Your task to perform on an android device: View the shopping cart on bestbuy.com. Search for "usb-c to usb-b" on bestbuy.com, select the first entry, and add it to the cart. Image 0: 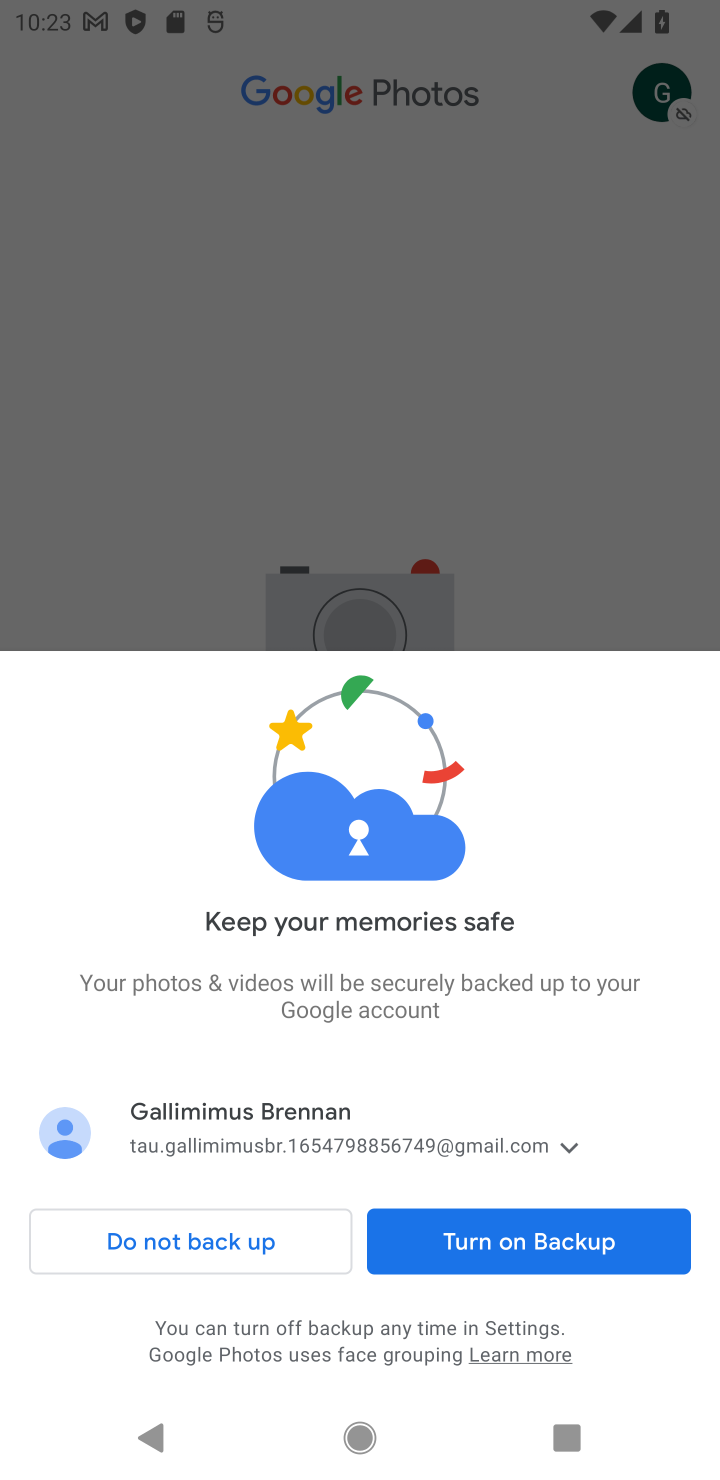
Step 0: press home button
Your task to perform on an android device: View the shopping cart on bestbuy.com. Search for "usb-c to usb-b" on bestbuy.com, select the first entry, and add it to the cart. Image 1: 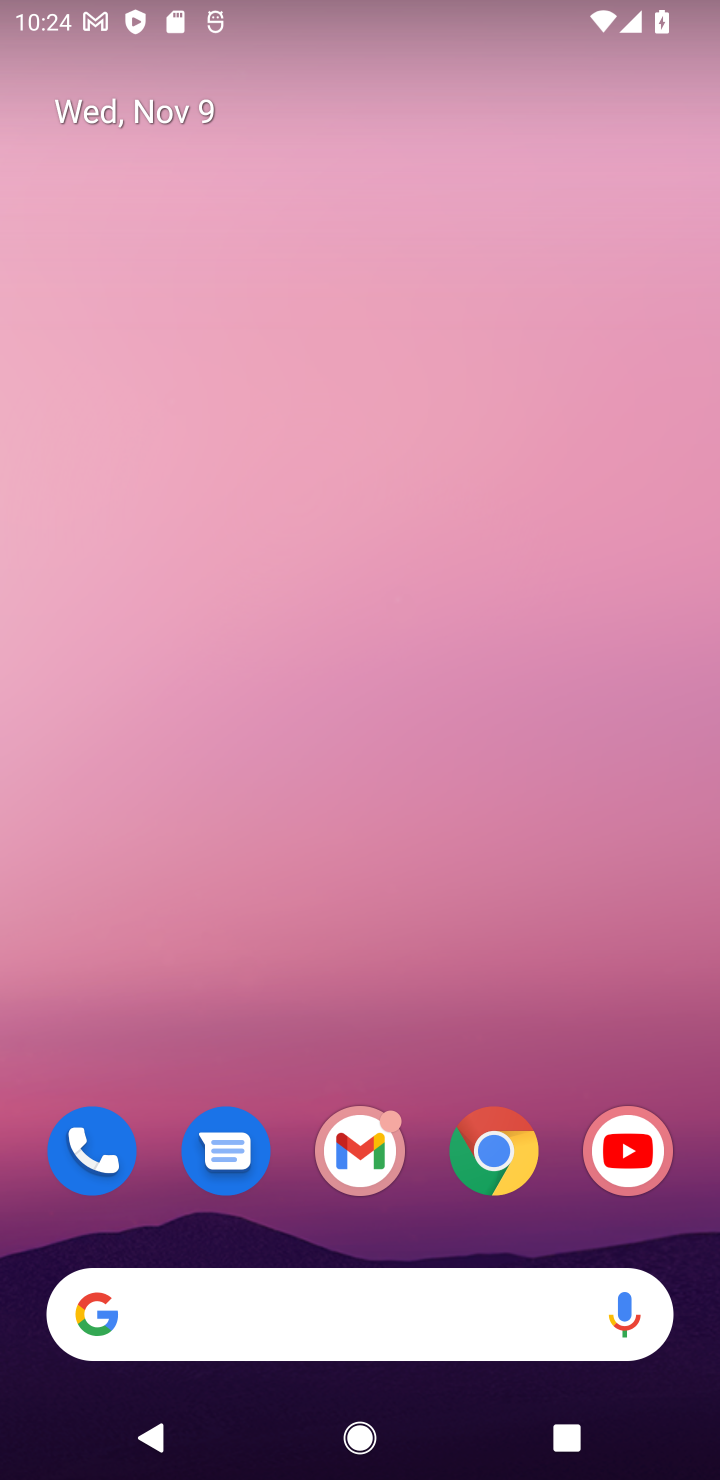
Step 1: click (474, 1167)
Your task to perform on an android device: View the shopping cart on bestbuy.com. Search for "usb-c to usb-b" on bestbuy.com, select the first entry, and add it to the cart. Image 2: 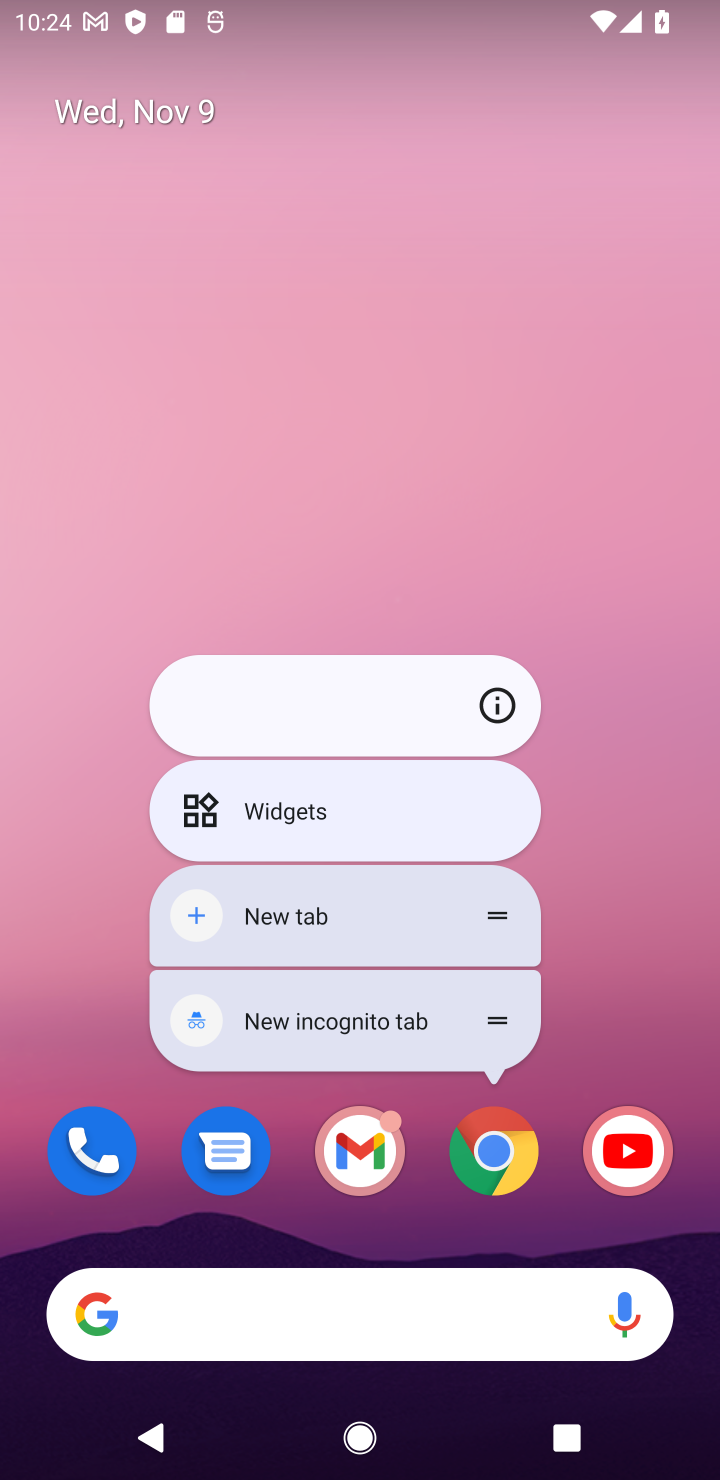
Step 2: click (474, 1167)
Your task to perform on an android device: View the shopping cart on bestbuy.com. Search for "usb-c to usb-b" on bestbuy.com, select the first entry, and add it to the cart. Image 3: 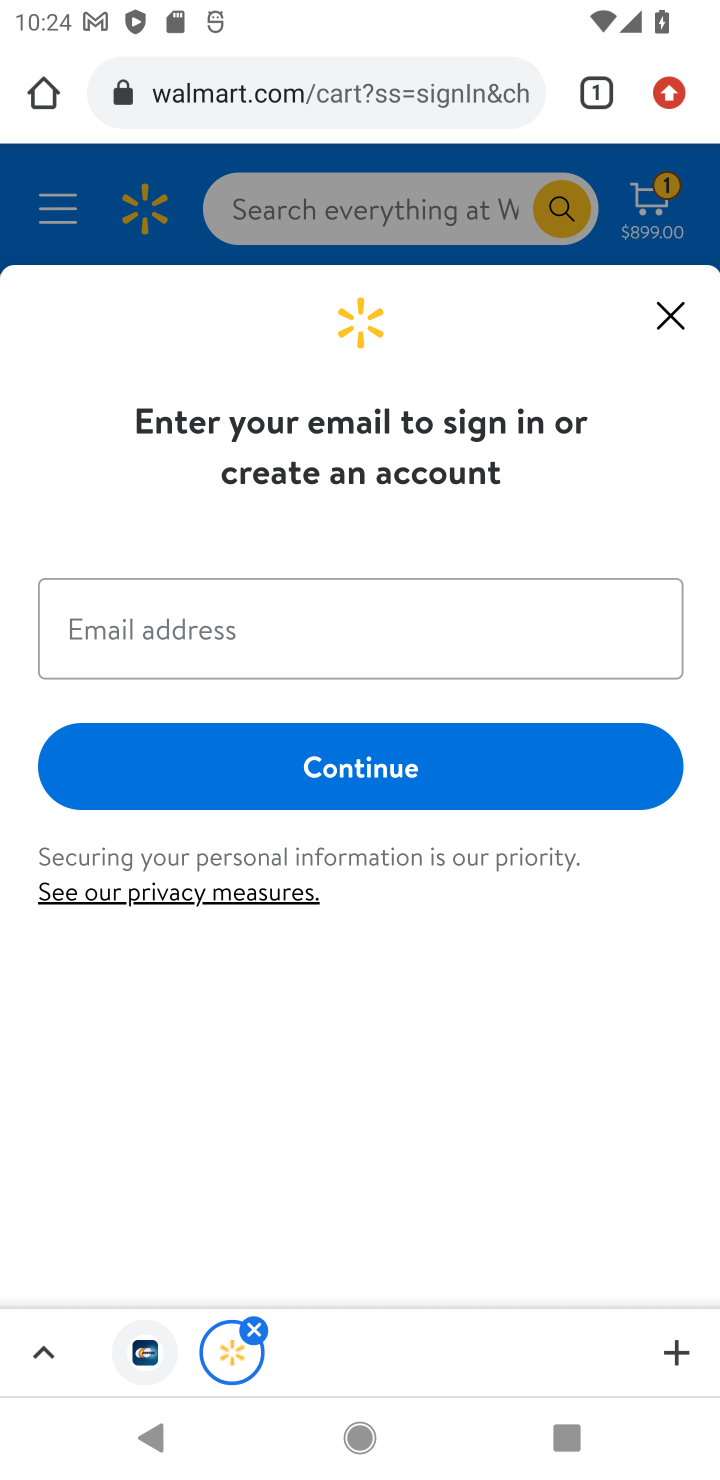
Step 3: click (398, 94)
Your task to perform on an android device: View the shopping cart on bestbuy.com. Search for "usb-c to usb-b" on bestbuy.com, select the first entry, and add it to the cart. Image 4: 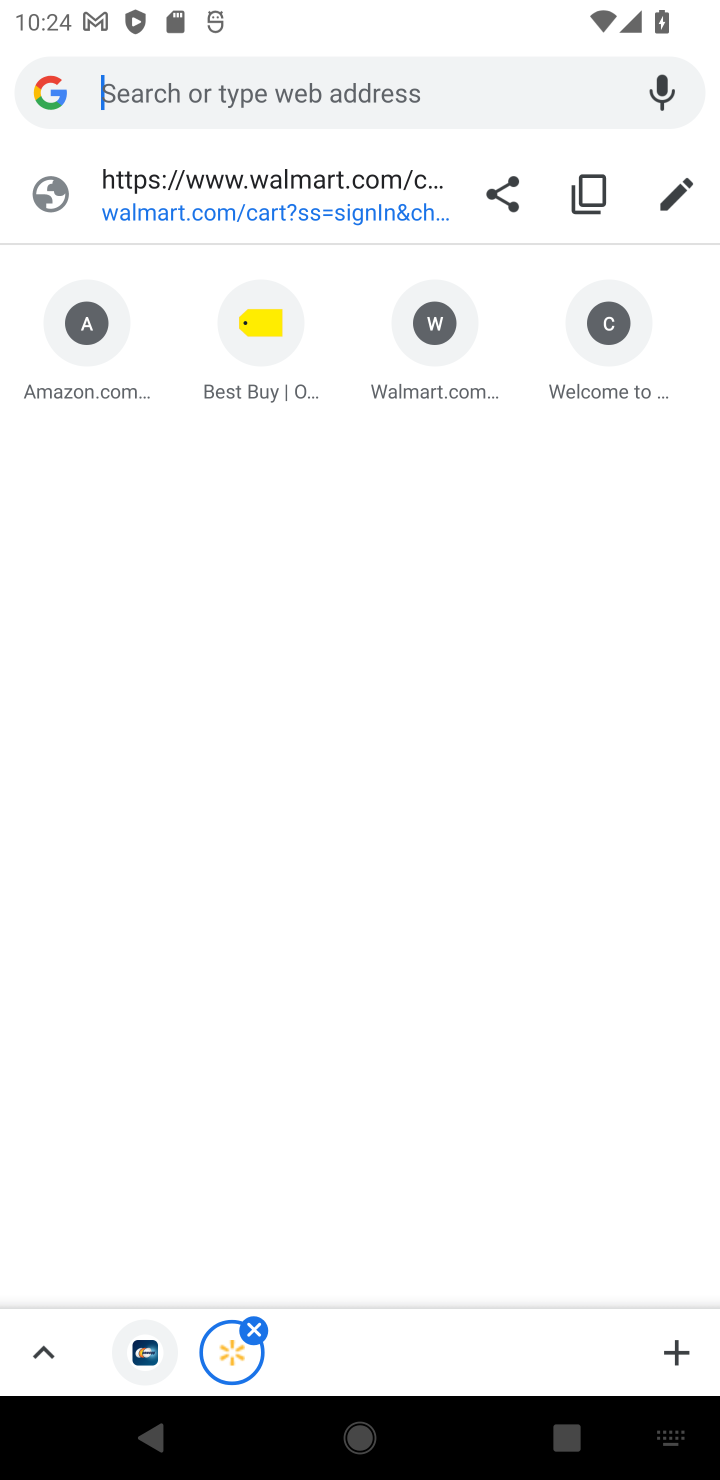
Step 4: type "bestbuy.com"
Your task to perform on an android device: View the shopping cart on bestbuy.com. Search for "usb-c to usb-b" on bestbuy.com, select the first entry, and add it to the cart. Image 5: 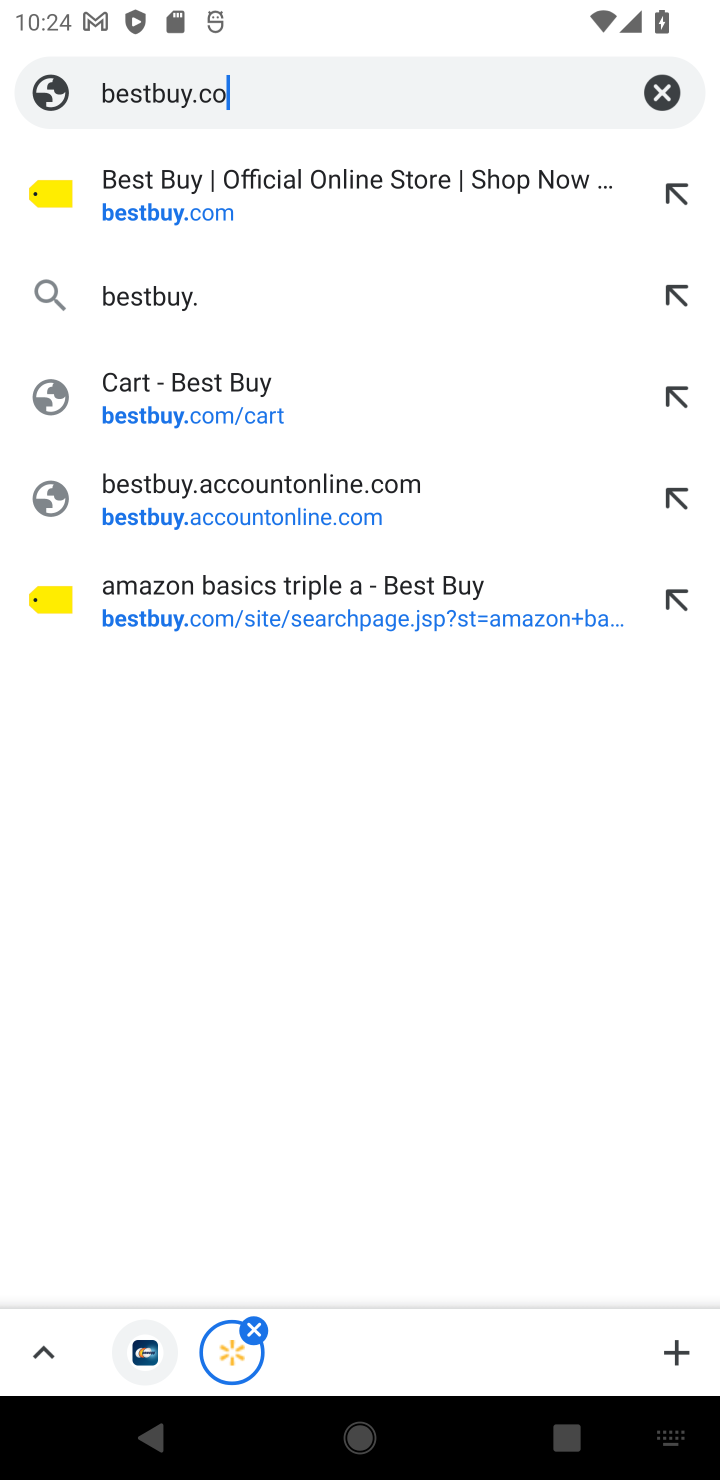
Step 5: press enter
Your task to perform on an android device: View the shopping cart on bestbuy.com. Search for "usb-c to usb-b" on bestbuy.com, select the first entry, and add it to the cart. Image 6: 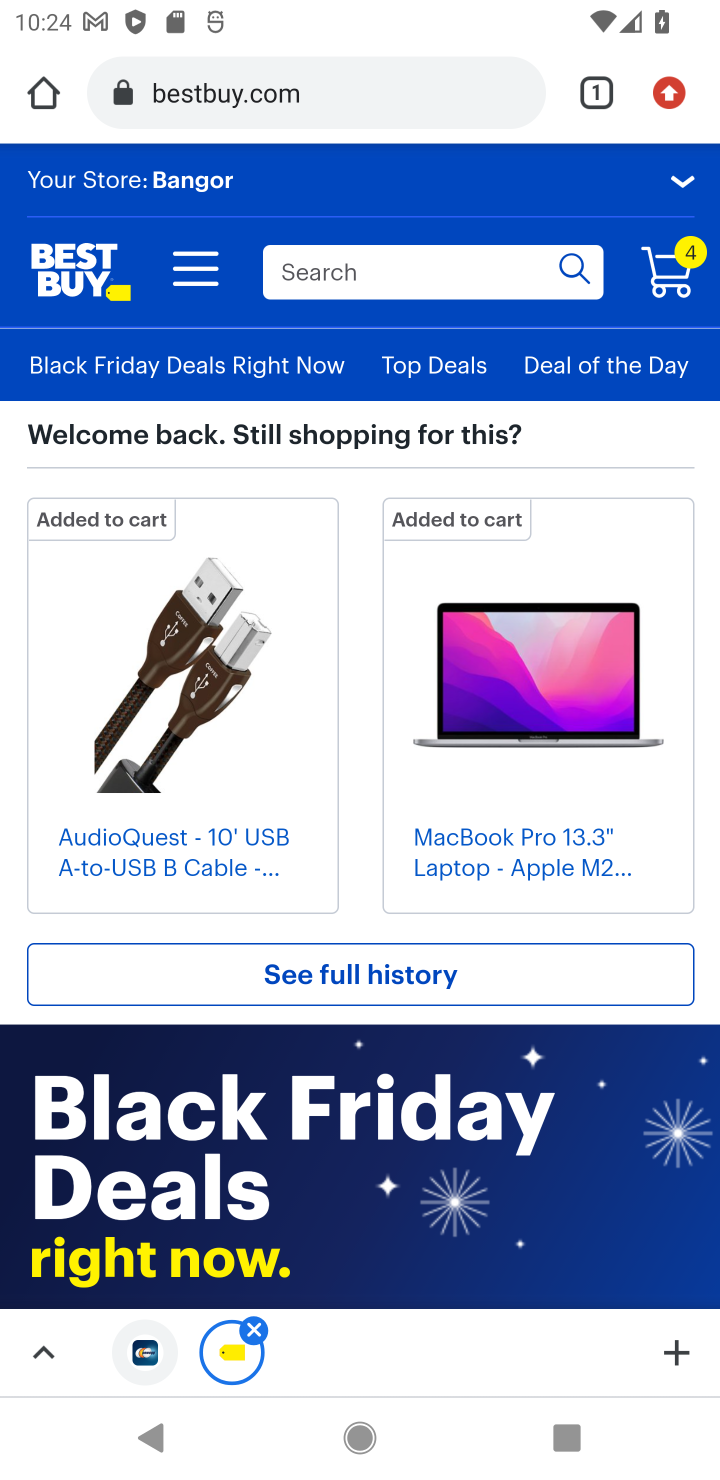
Step 6: click (673, 274)
Your task to perform on an android device: View the shopping cart on bestbuy.com. Search for "usb-c to usb-b" on bestbuy.com, select the first entry, and add it to the cart. Image 7: 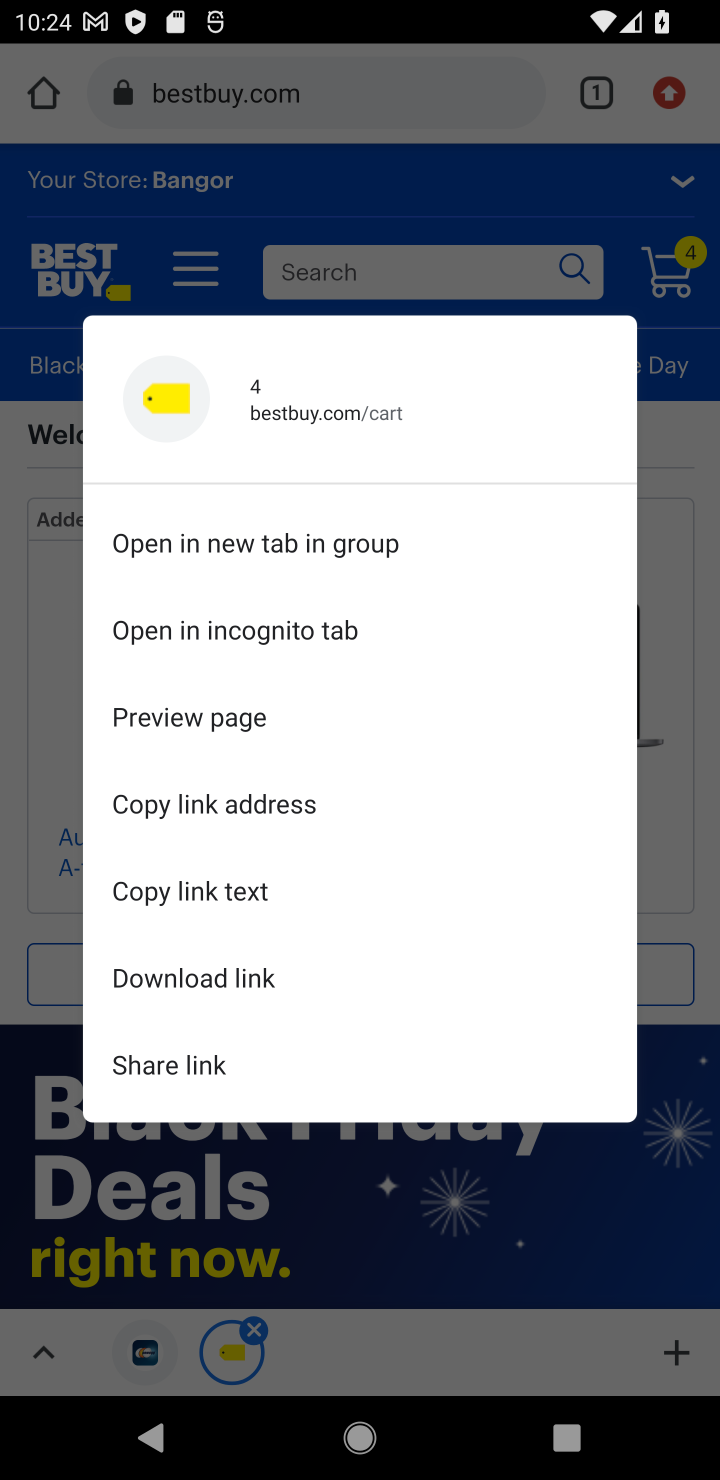
Step 7: click (673, 274)
Your task to perform on an android device: View the shopping cart on bestbuy.com. Search for "usb-c to usb-b" on bestbuy.com, select the first entry, and add it to the cart. Image 8: 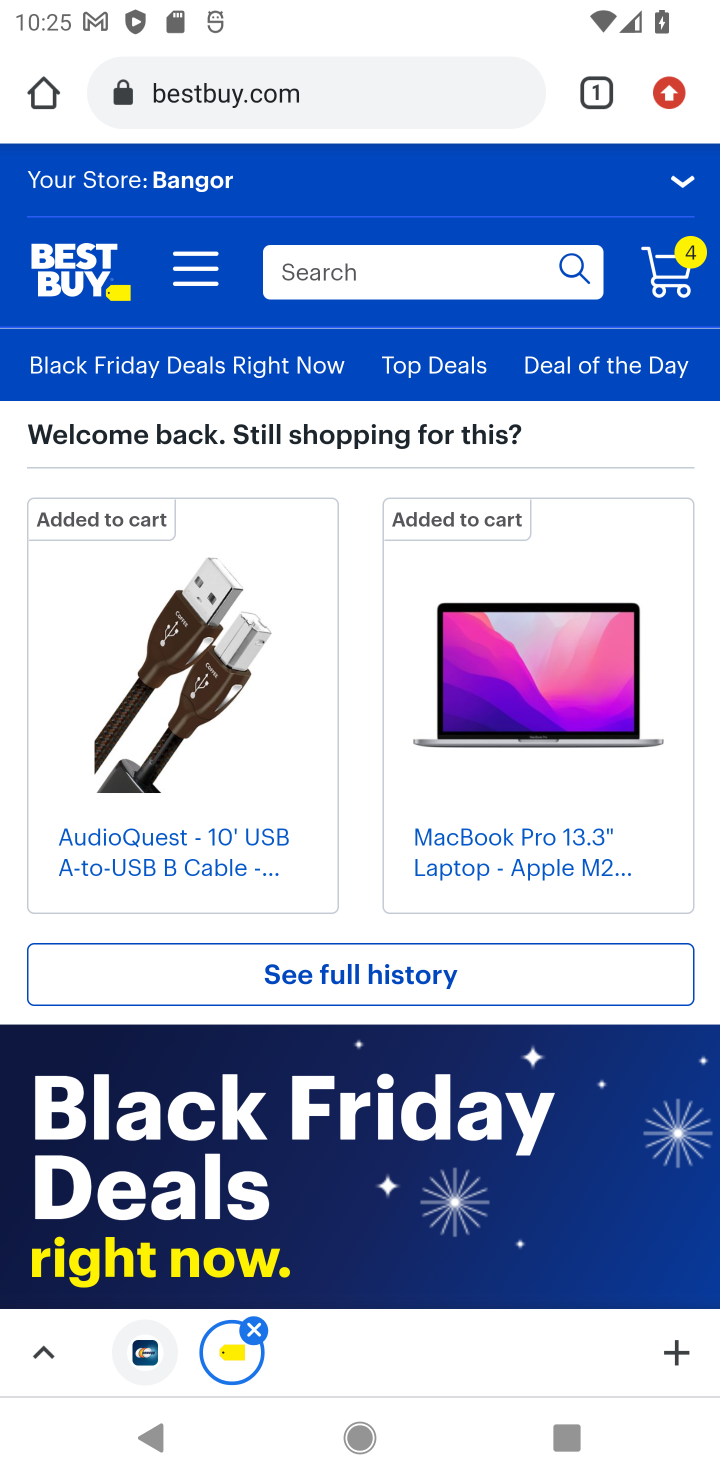
Step 8: click (460, 271)
Your task to perform on an android device: View the shopping cart on bestbuy.com. Search for "usb-c to usb-b" on bestbuy.com, select the first entry, and add it to the cart. Image 9: 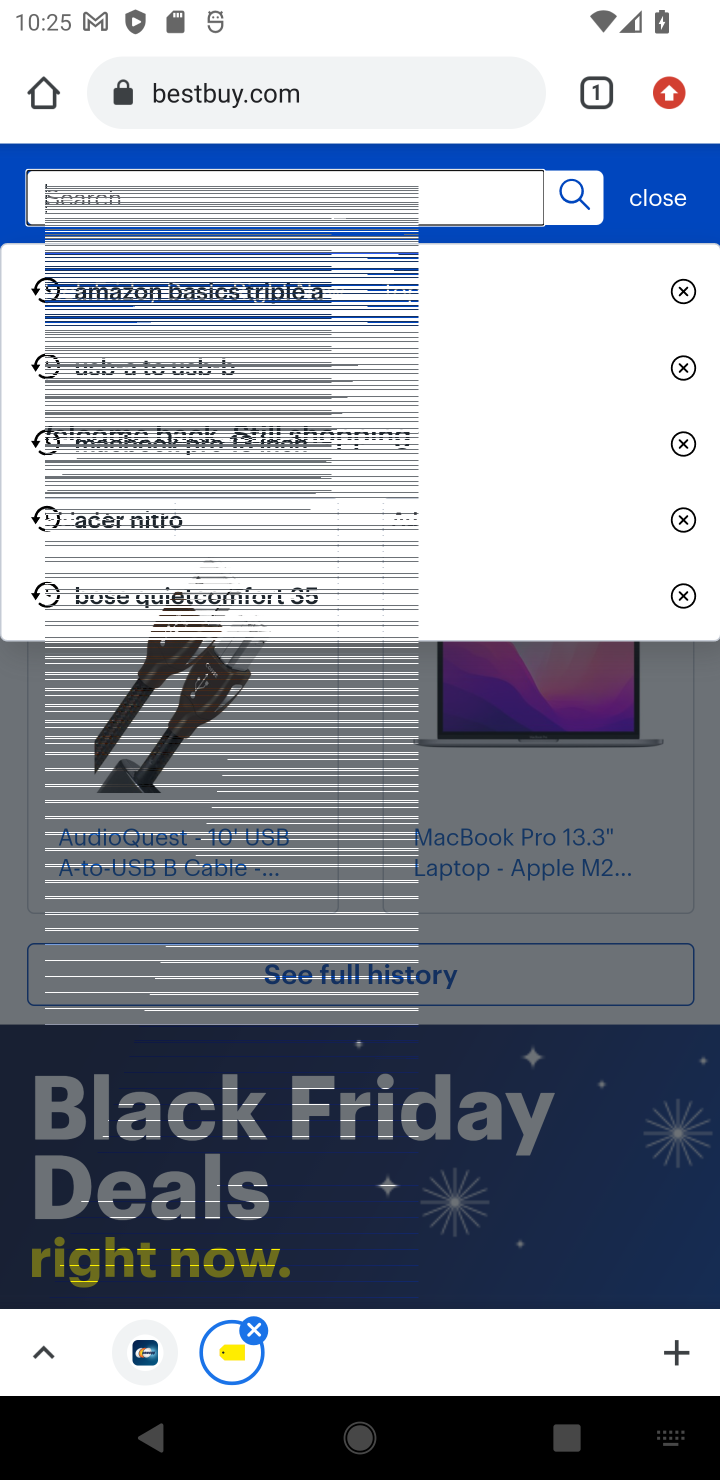
Step 9: type "usb-c to usb-b"
Your task to perform on an android device: View the shopping cart on bestbuy.com. Search for "usb-c to usb-b" on bestbuy.com, select the first entry, and add it to the cart. Image 10: 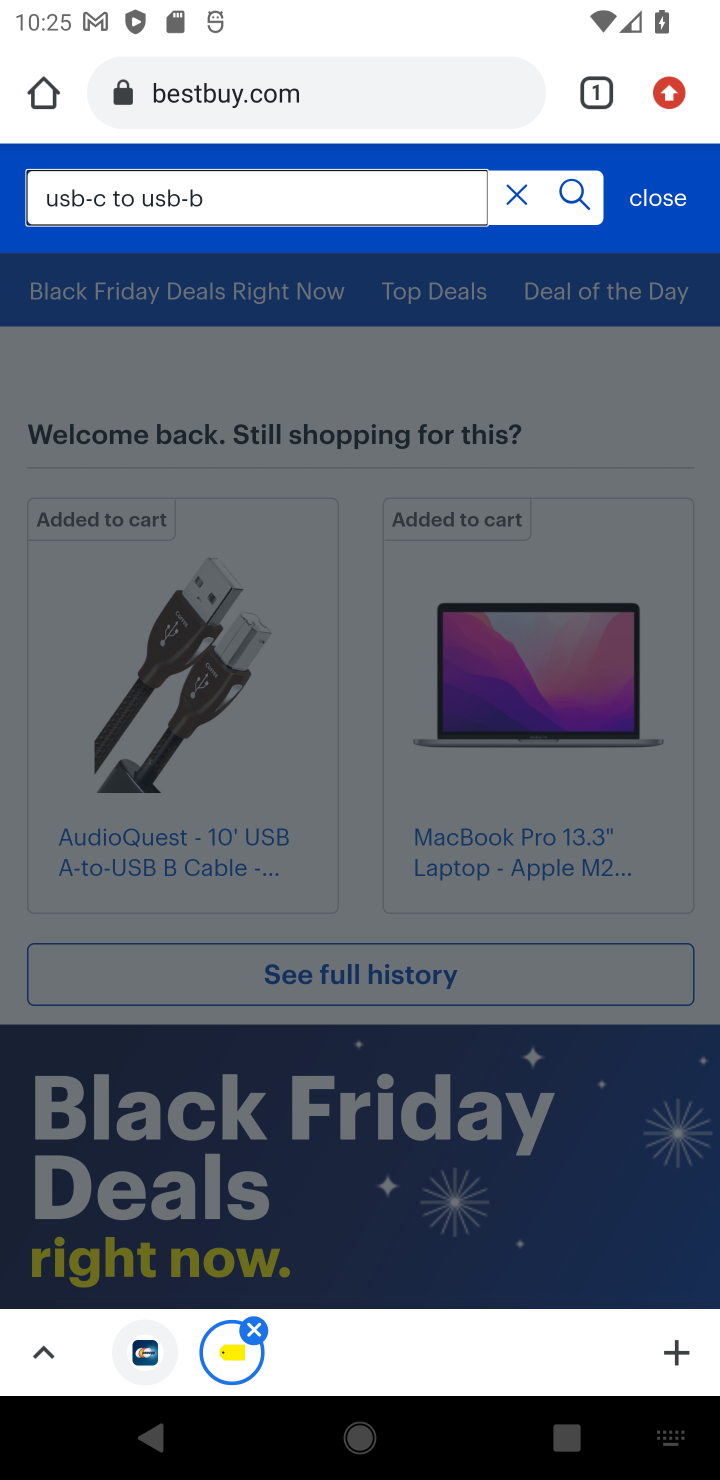
Step 10: click (587, 344)
Your task to perform on an android device: View the shopping cart on bestbuy.com. Search for "usb-c to usb-b" on bestbuy.com, select the first entry, and add it to the cart. Image 11: 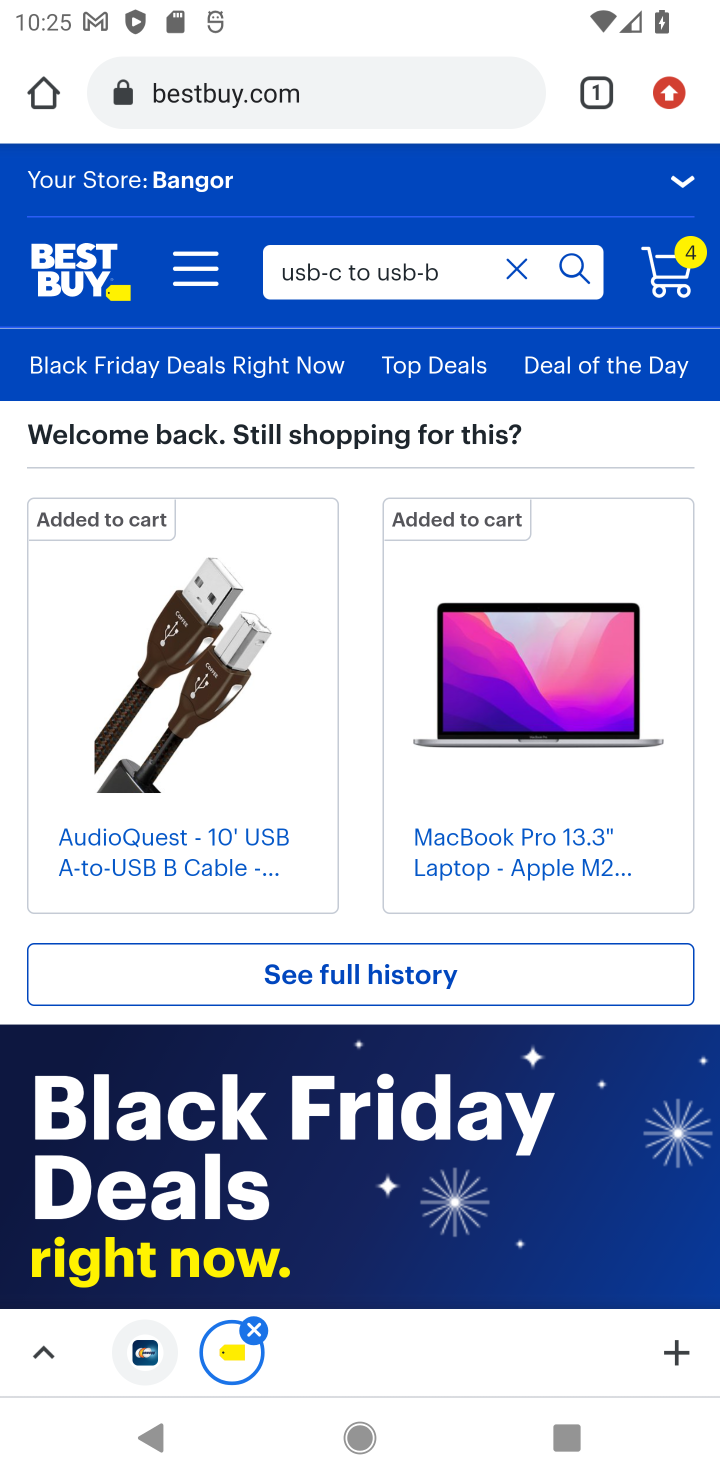
Step 11: task complete